Your task to perform on an android device: turn on the 24-hour format for clock Image 0: 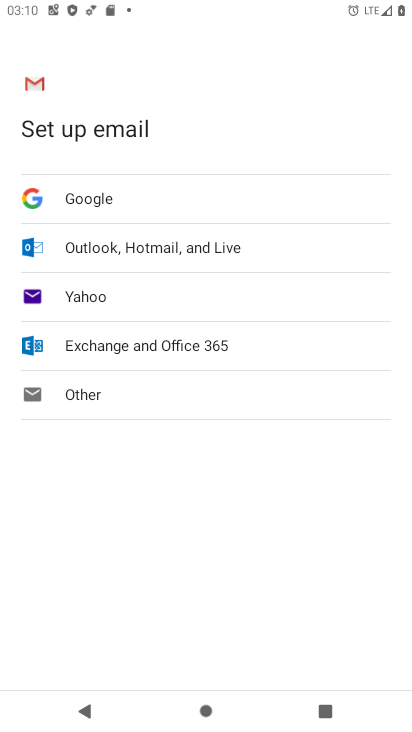
Step 0: press home button
Your task to perform on an android device: turn on the 24-hour format for clock Image 1: 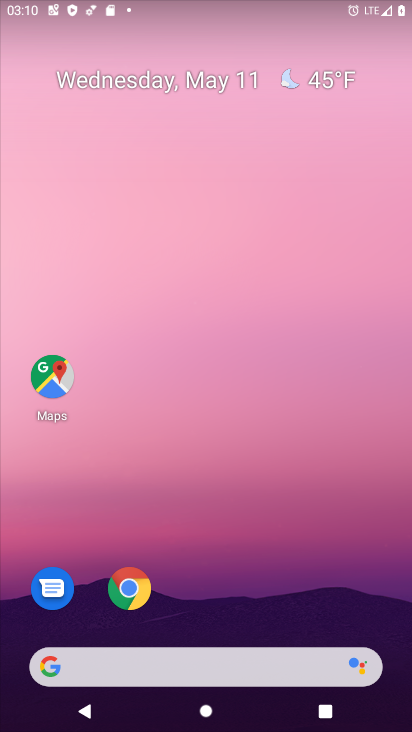
Step 1: drag from (215, 627) to (228, 288)
Your task to perform on an android device: turn on the 24-hour format for clock Image 2: 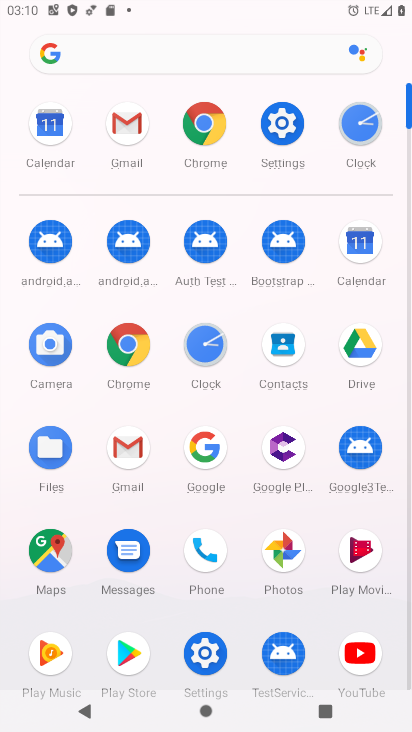
Step 2: click (204, 359)
Your task to perform on an android device: turn on the 24-hour format for clock Image 3: 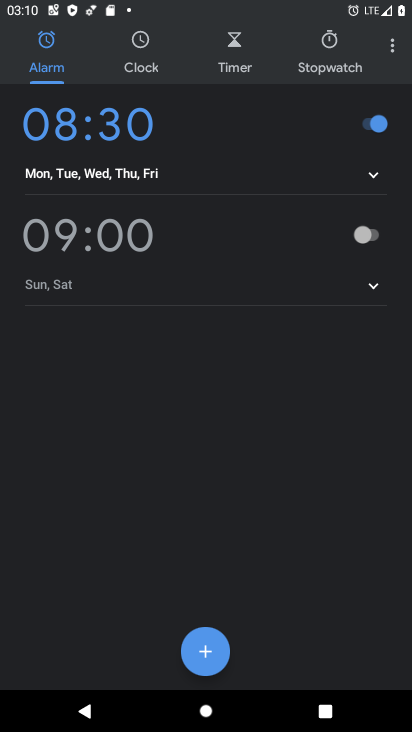
Step 3: click (384, 50)
Your task to perform on an android device: turn on the 24-hour format for clock Image 4: 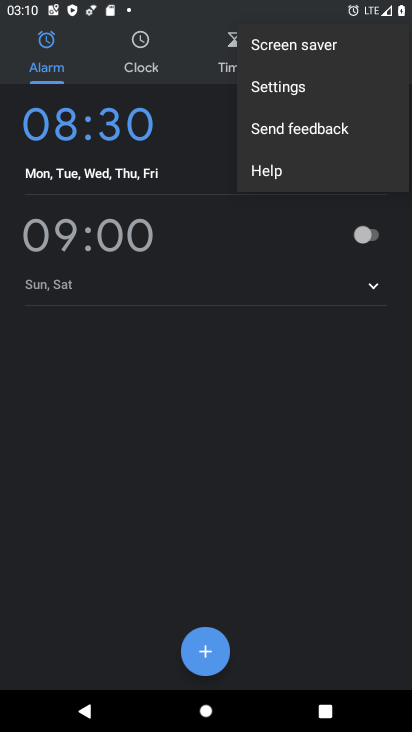
Step 4: click (353, 82)
Your task to perform on an android device: turn on the 24-hour format for clock Image 5: 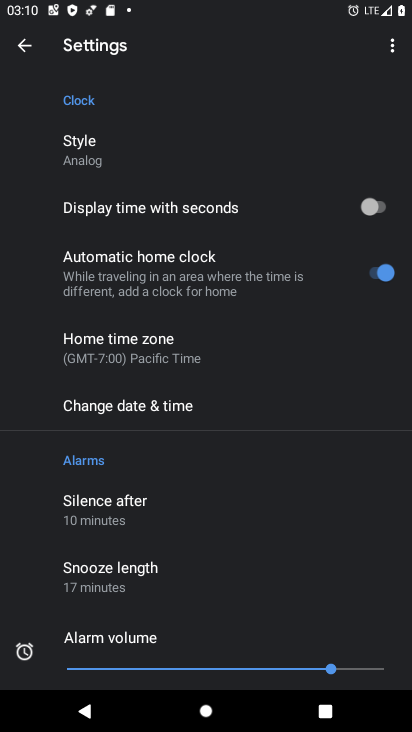
Step 5: click (212, 399)
Your task to perform on an android device: turn on the 24-hour format for clock Image 6: 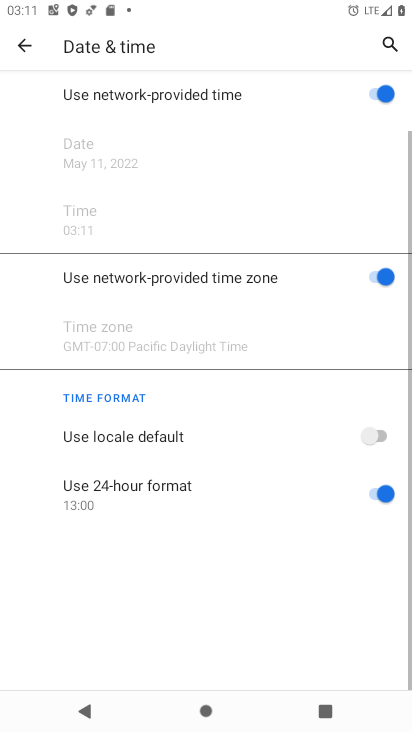
Step 6: task complete